Your task to perform on an android device: Go to eBay Image 0: 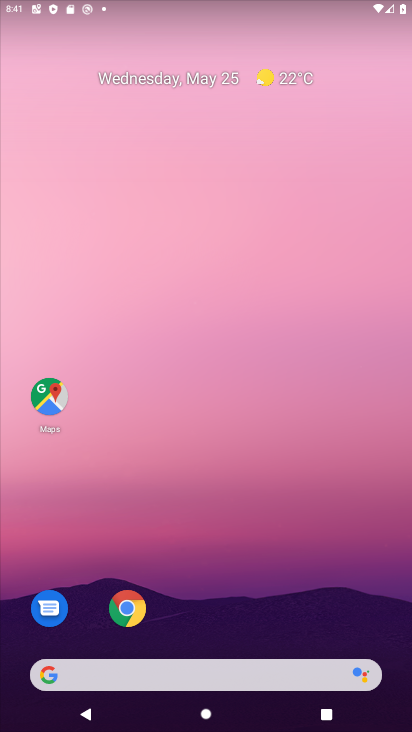
Step 0: drag from (254, 581) to (288, 47)
Your task to perform on an android device: Go to eBay Image 1: 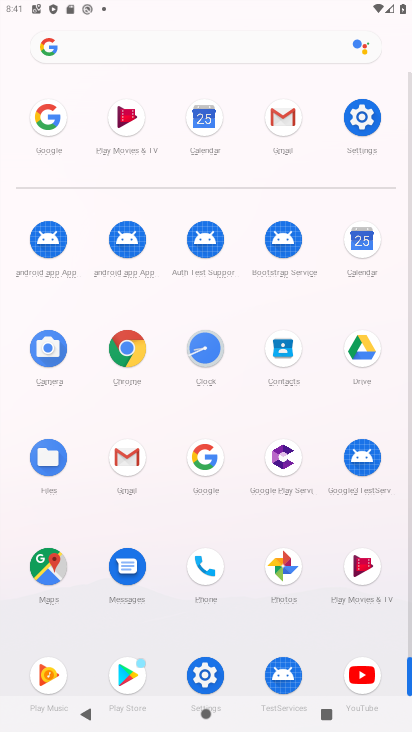
Step 1: click (43, 117)
Your task to perform on an android device: Go to eBay Image 2: 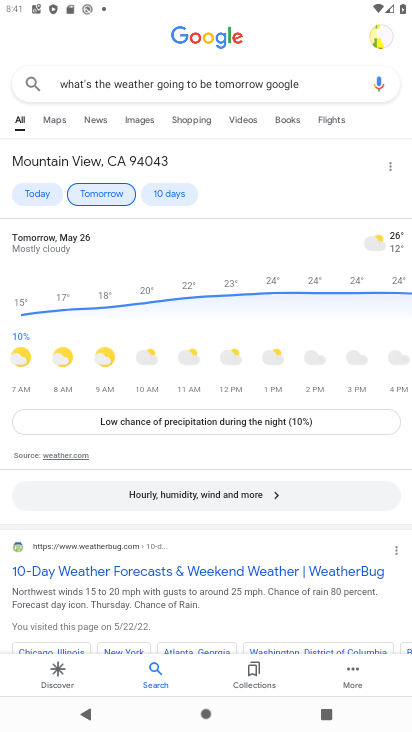
Step 2: click (326, 89)
Your task to perform on an android device: Go to eBay Image 3: 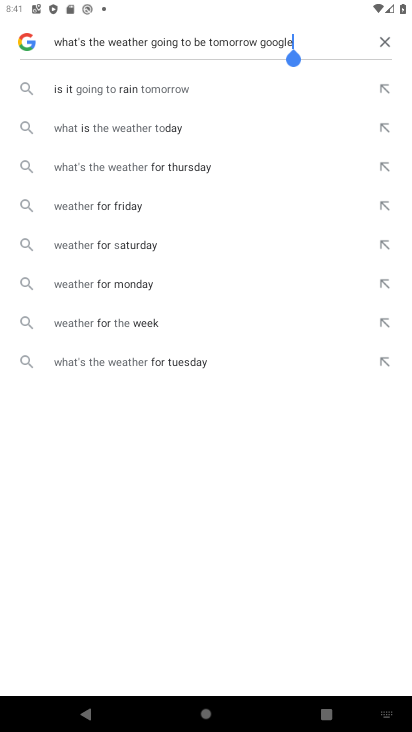
Step 3: click (387, 44)
Your task to perform on an android device: Go to eBay Image 4: 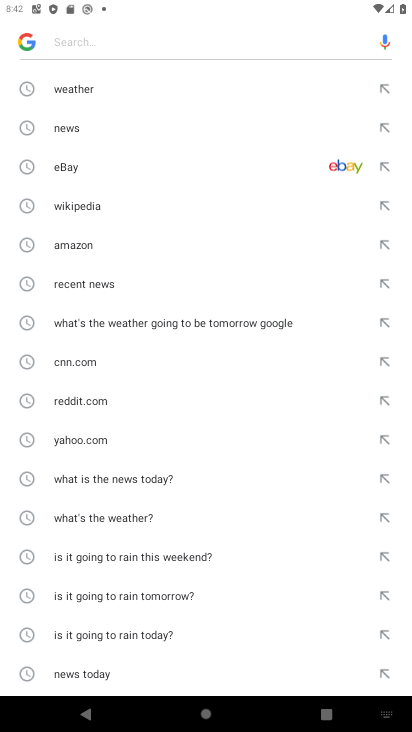
Step 4: click (247, 40)
Your task to perform on an android device: Go to eBay Image 5: 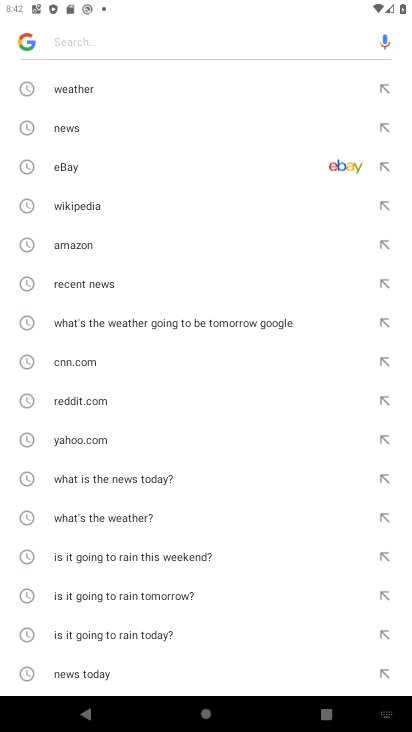
Step 5: type "eBay"
Your task to perform on an android device: Go to eBay Image 6: 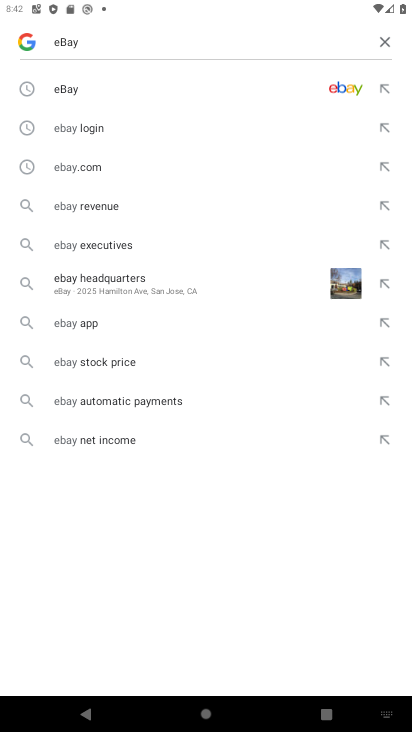
Step 6: click (78, 93)
Your task to perform on an android device: Go to eBay Image 7: 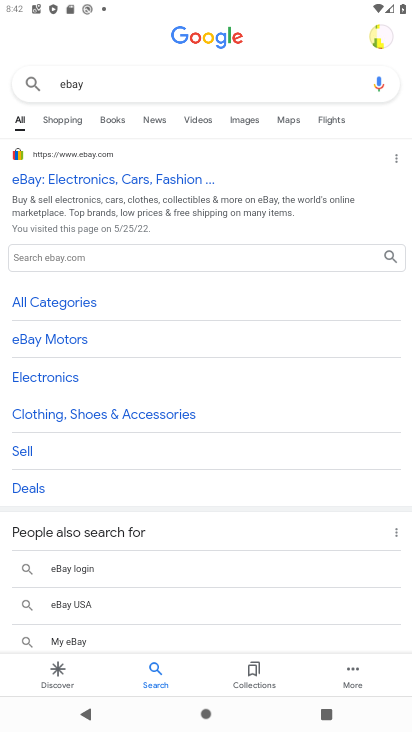
Step 7: click (110, 180)
Your task to perform on an android device: Go to eBay Image 8: 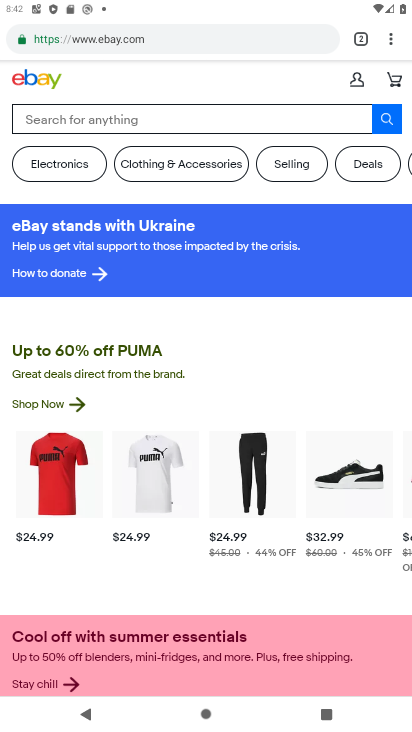
Step 8: task complete